Your task to perform on an android device: Go to Maps Image 0: 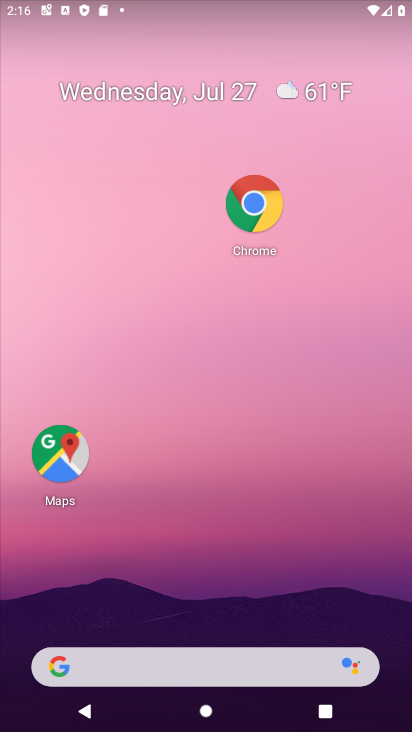
Step 0: click (52, 460)
Your task to perform on an android device: Go to Maps Image 1: 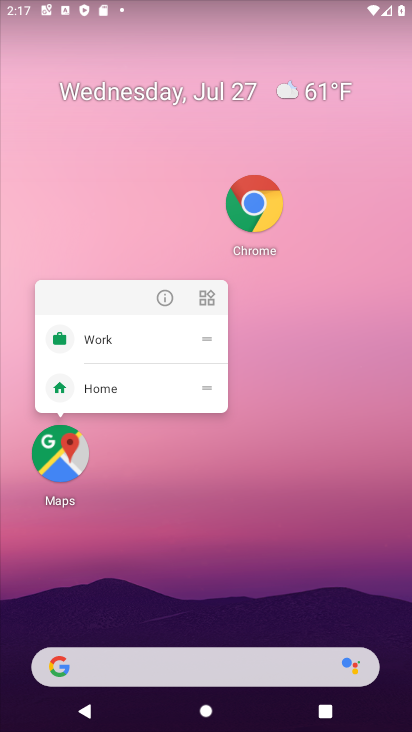
Step 1: click (64, 455)
Your task to perform on an android device: Go to Maps Image 2: 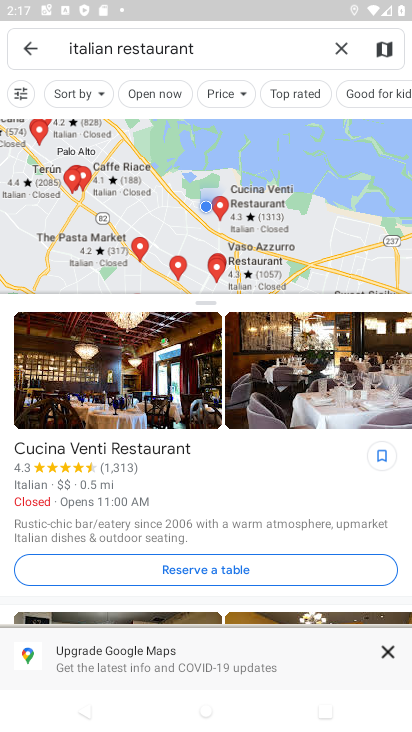
Step 2: task complete